Your task to perform on an android device: Go to Maps Image 0: 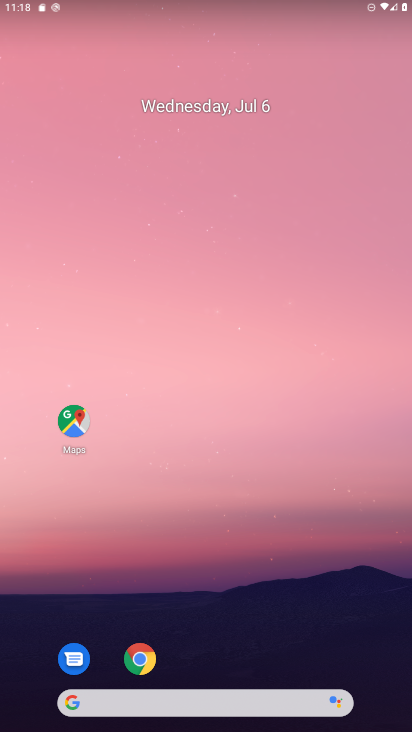
Step 0: click (75, 407)
Your task to perform on an android device: Go to Maps Image 1: 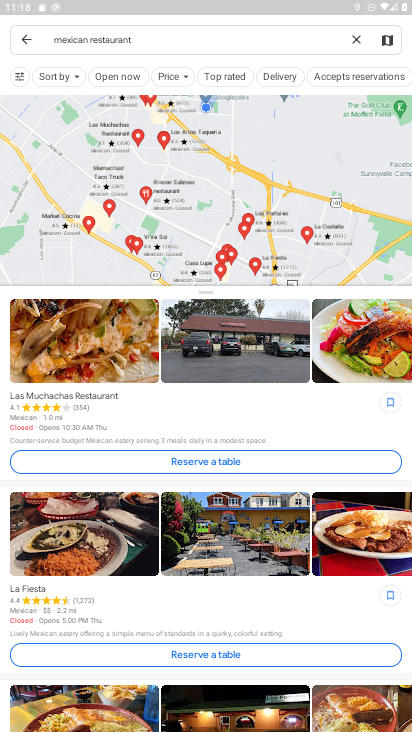
Step 1: task complete